Your task to perform on an android device: Go to Google Image 0: 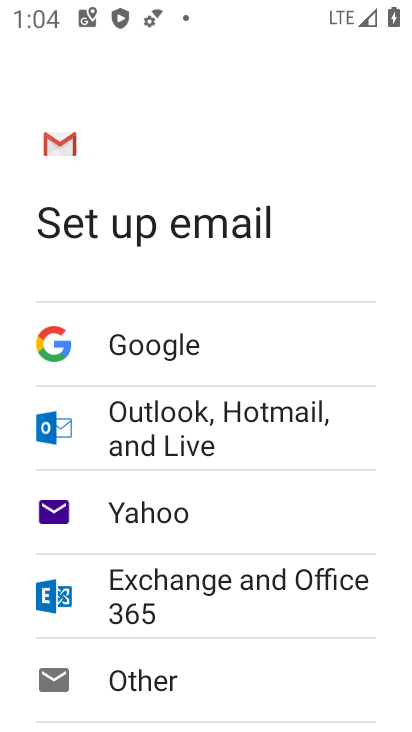
Step 0: press home button
Your task to perform on an android device: Go to Google Image 1: 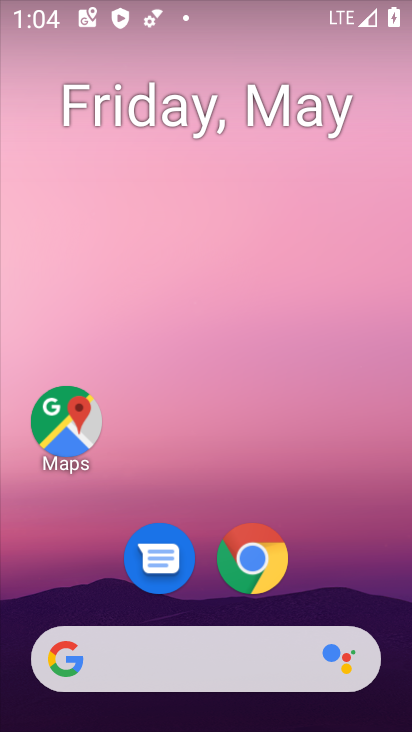
Step 1: drag from (385, 599) to (298, 16)
Your task to perform on an android device: Go to Google Image 2: 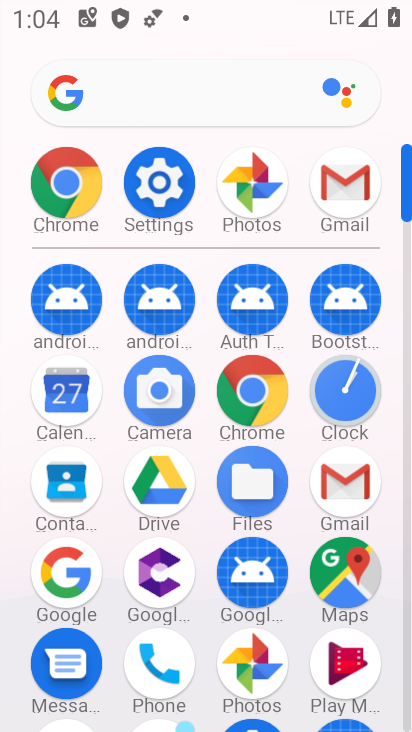
Step 2: click (78, 564)
Your task to perform on an android device: Go to Google Image 3: 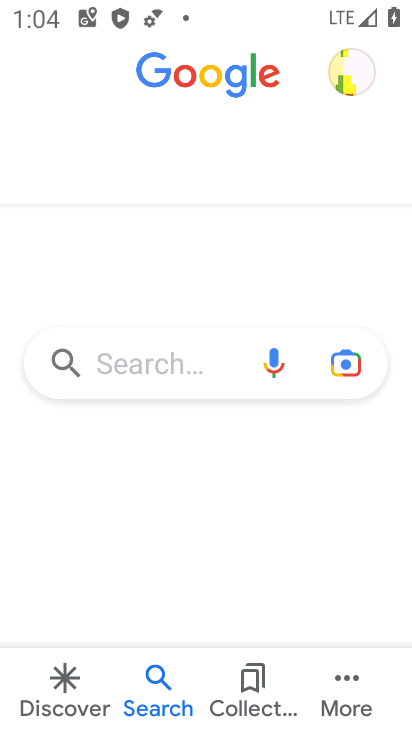
Step 3: task complete